Your task to perform on an android device: open chrome privacy settings Image 0: 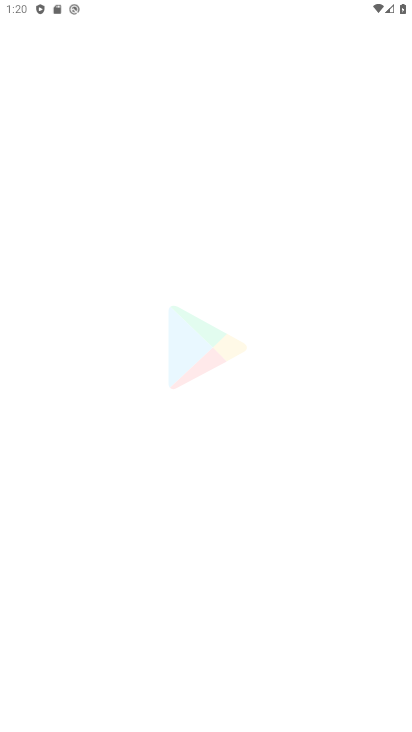
Step 0: press home button
Your task to perform on an android device: open chrome privacy settings Image 1: 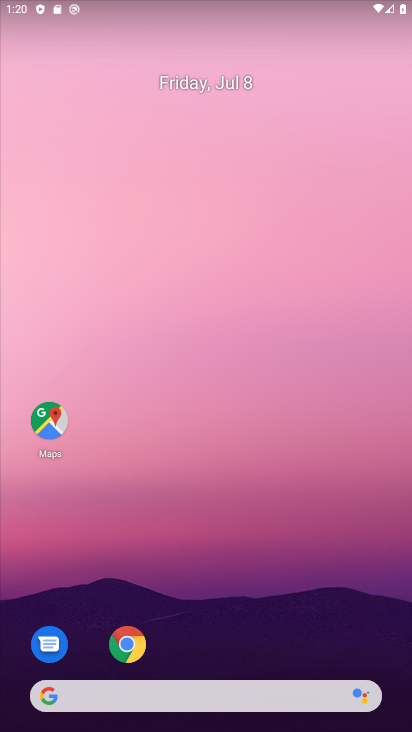
Step 1: click (127, 643)
Your task to perform on an android device: open chrome privacy settings Image 2: 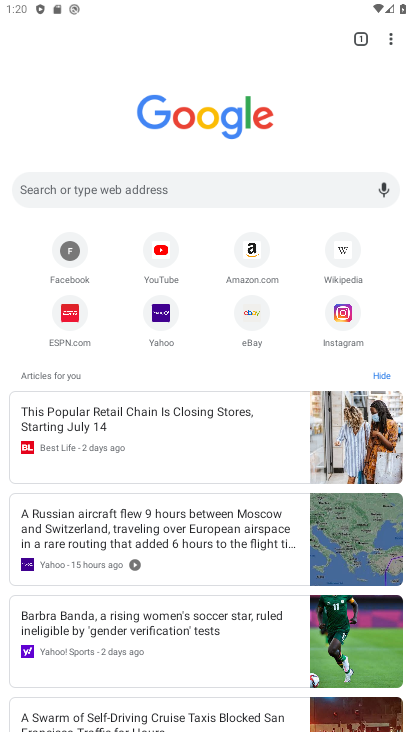
Step 2: drag from (393, 38) to (264, 333)
Your task to perform on an android device: open chrome privacy settings Image 3: 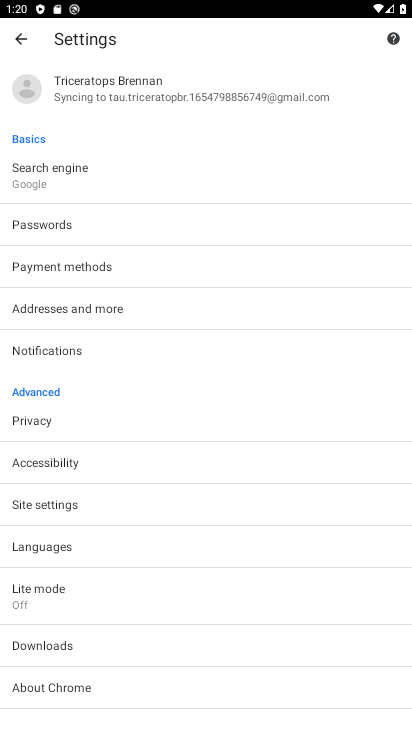
Step 3: click (34, 413)
Your task to perform on an android device: open chrome privacy settings Image 4: 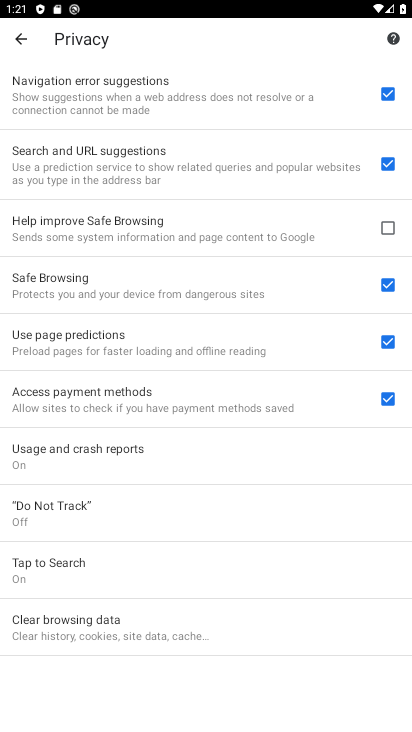
Step 4: task complete